Your task to perform on an android device: open wifi settings Image 0: 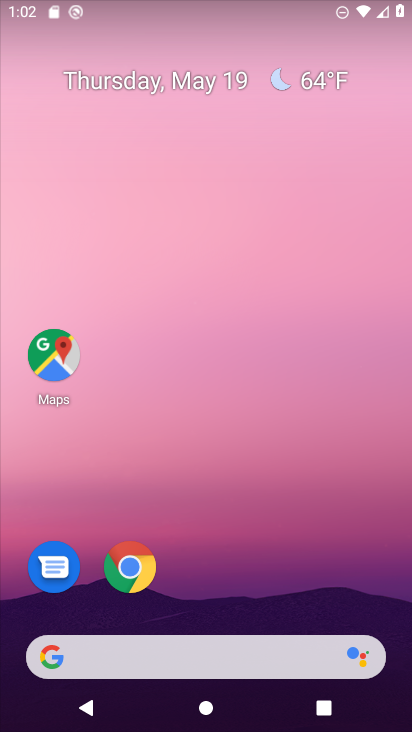
Step 0: drag from (253, 563) to (290, 142)
Your task to perform on an android device: open wifi settings Image 1: 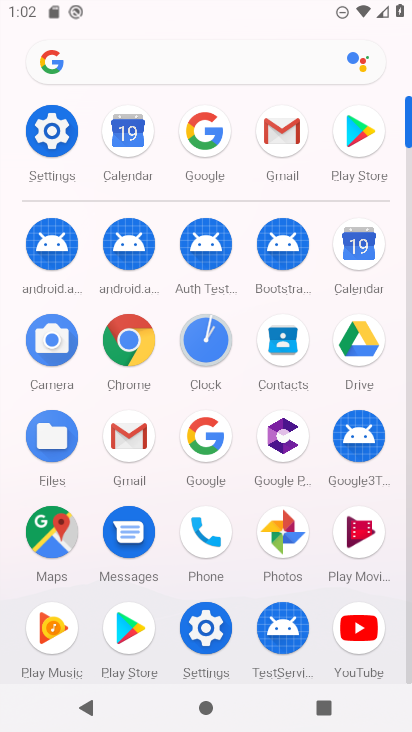
Step 1: click (51, 147)
Your task to perform on an android device: open wifi settings Image 2: 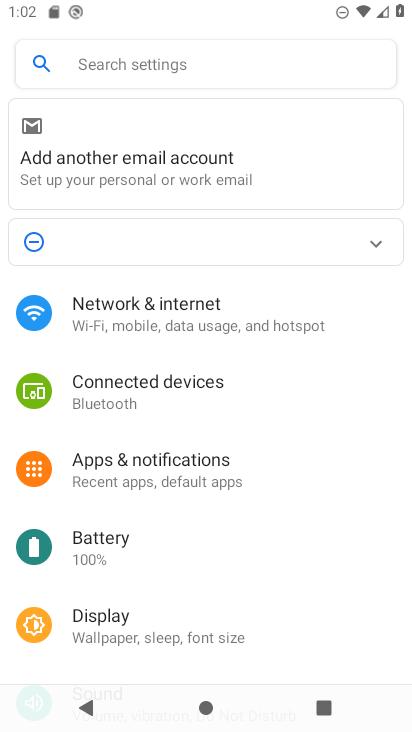
Step 2: click (191, 312)
Your task to perform on an android device: open wifi settings Image 3: 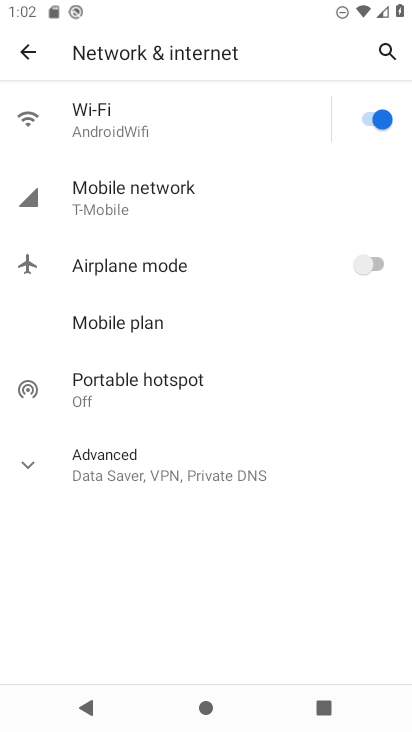
Step 3: click (153, 128)
Your task to perform on an android device: open wifi settings Image 4: 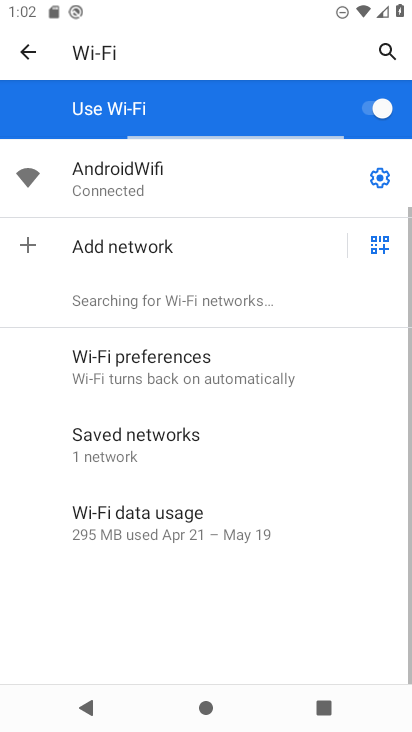
Step 4: task complete